Your task to perform on an android device: turn off priority inbox in the gmail app Image 0: 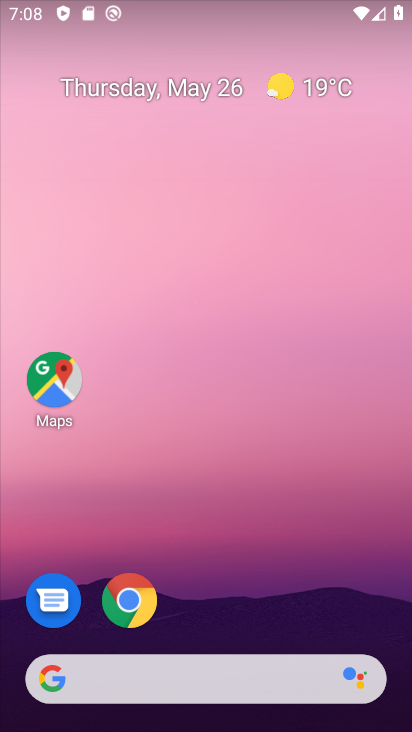
Step 0: press home button
Your task to perform on an android device: turn off priority inbox in the gmail app Image 1: 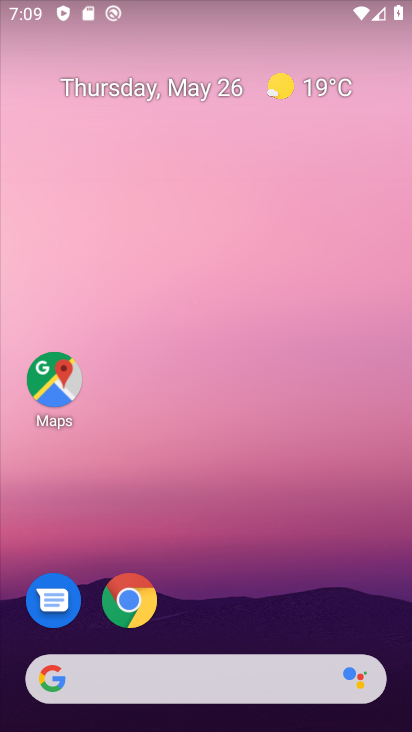
Step 1: drag from (289, 715) to (248, 153)
Your task to perform on an android device: turn off priority inbox in the gmail app Image 2: 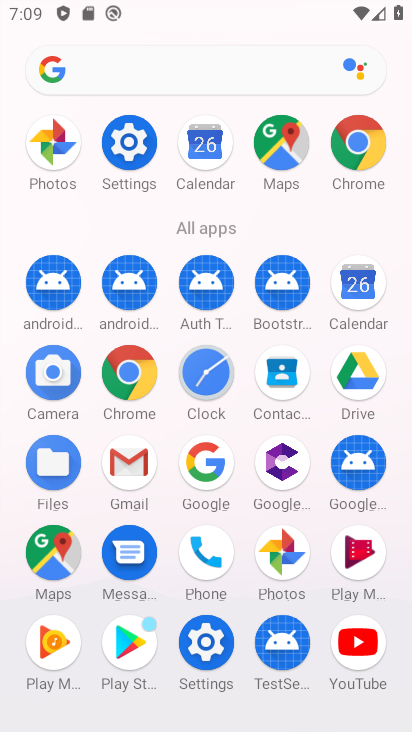
Step 2: click (138, 480)
Your task to perform on an android device: turn off priority inbox in the gmail app Image 3: 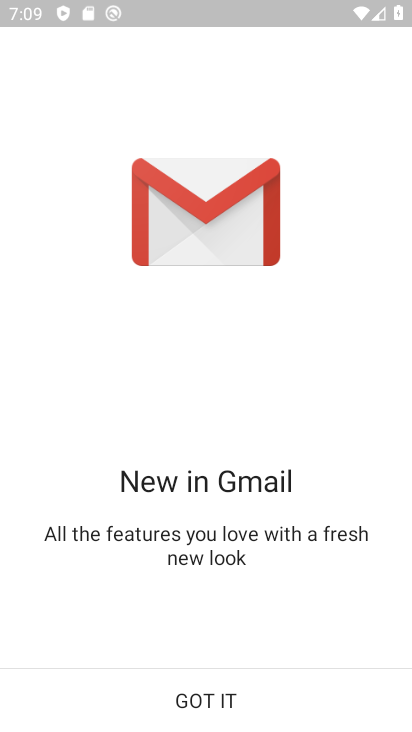
Step 3: click (219, 687)
Your task to perform on an android device: turn off priority inbox in the gmail app Image 4: 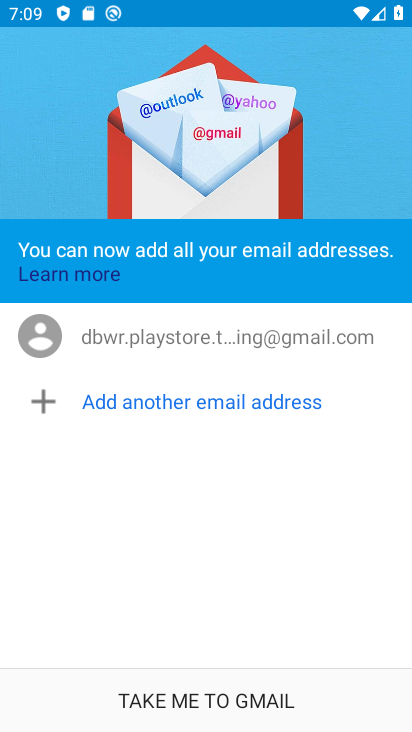
Step 4: click (214, 688)
Your task to perform on an android device: turn off priority inbox in the gmail app Image 5: 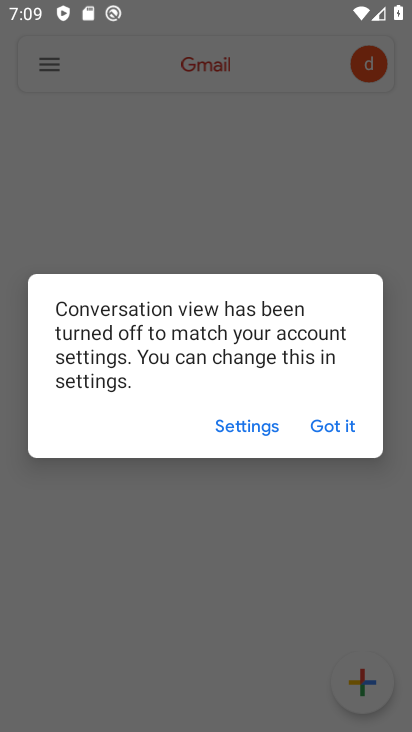
Step 5: click (339, 425)
Your task to perform on an android device: turn off priority inbox in the gmail app Image 6: 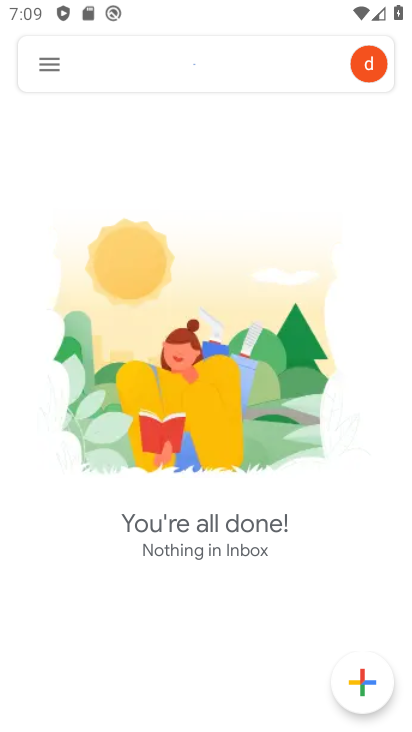
Step 6: click (38, 71)
Your task to perform on an android device: turn off priority inbox in the gmail app Image 7: 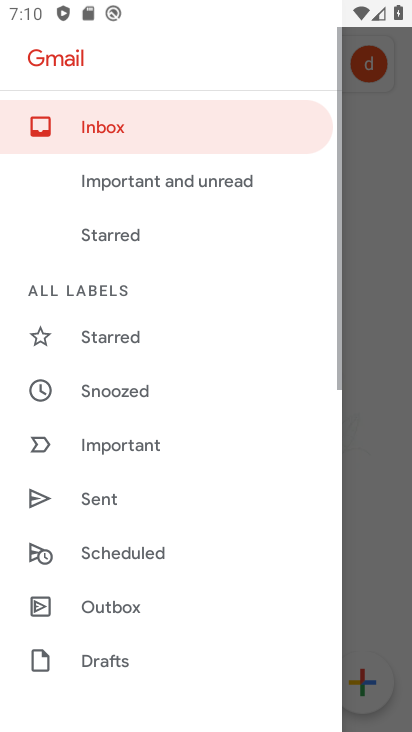
Step 7: drag from (157, 652) to (234, 441)
Your task to perform on an android device: turn off priority inbox in the gmail app Image 8: 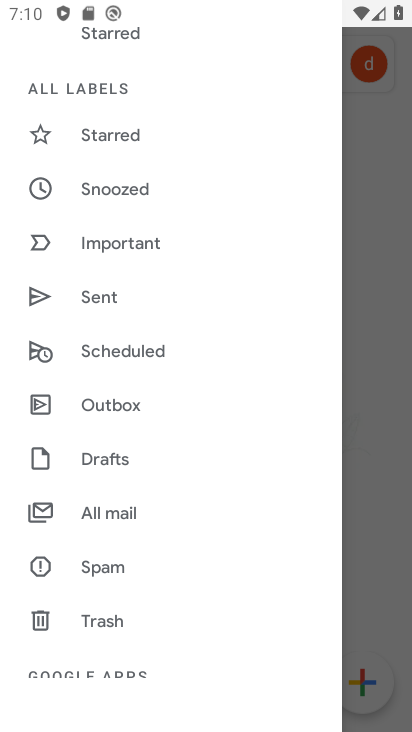
Step 8: drag from (157, 629) to (190, 429)
Your task to perform on an android device: turn off priority inbox in the gmail app Image 9: 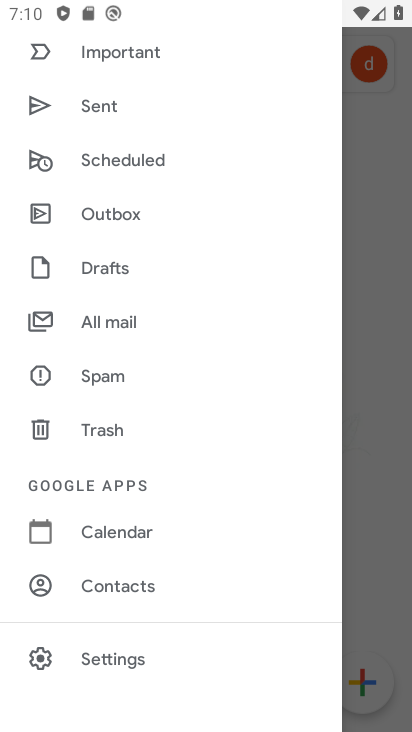
Step 9: click (105, 647)
Your task to perform on an android device: turn off priority inbox in the gmail app Image 10: 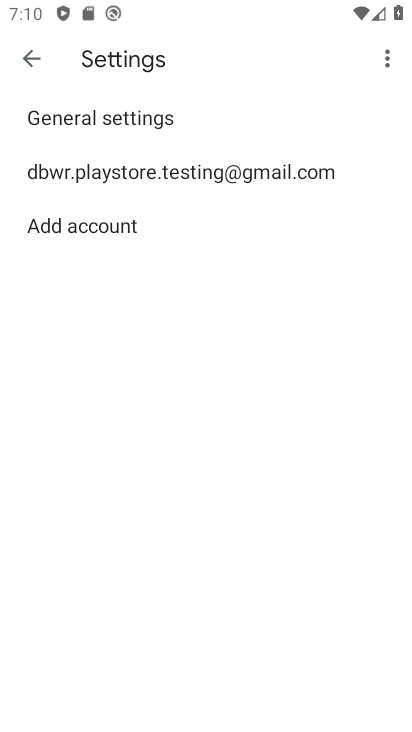
Step 10: click (225, 167)
Your task to perform on an android device: turn off priority inbox in the gmail app Image 11: 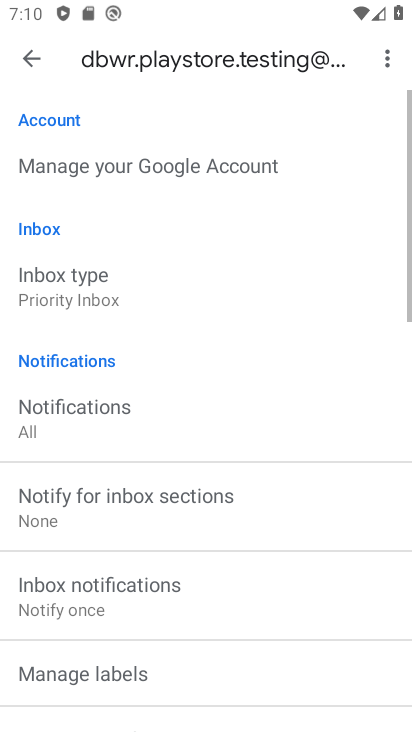
Step 11: click (104, 306)
Your task to perform on an android device: turn off priority inbox in the gmail app Image 12: 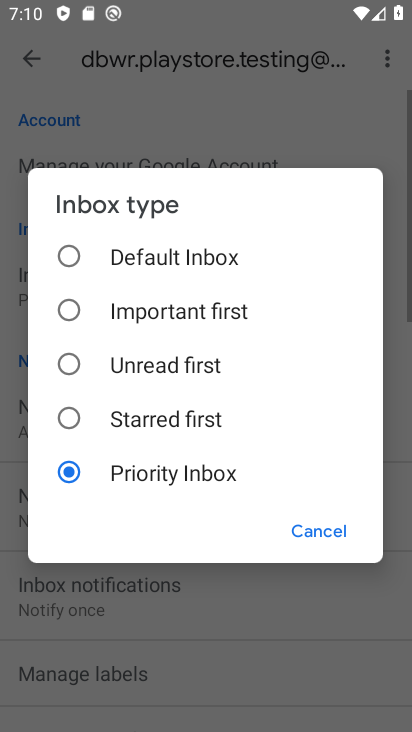
Step 12: click (134, 254)
Your task to perform on an android device: turn off priority inbox in the gmail app Image 13: 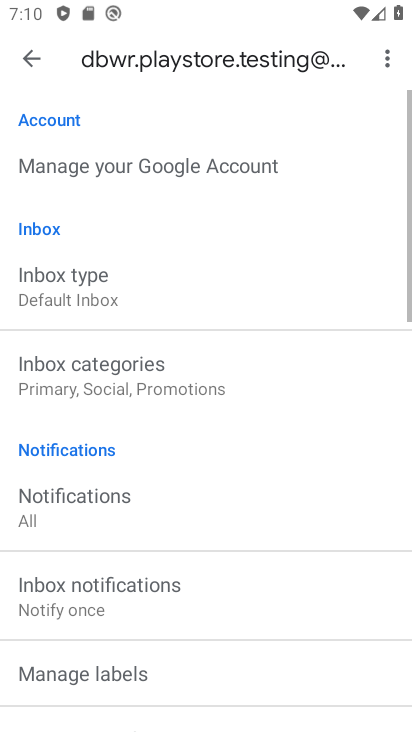
Step 13: task complete